Your task to perform on an android device: Open battery settings Image 0: 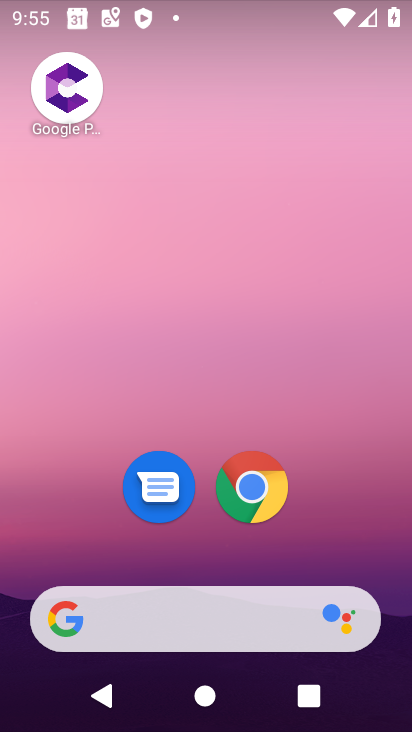
Step 0: drag from (31, 617) to (277, 176)
Your task to perform on an android device: Open battery settings Image 1: 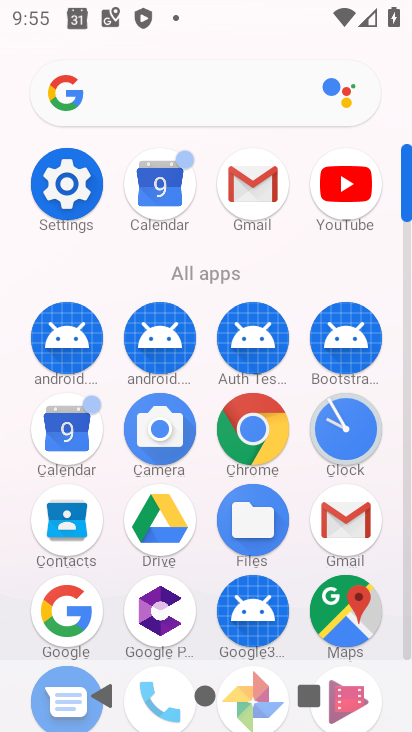
Step 1: click (87, 192)
Your task to perform on an android device: Open battery settings Image 2: 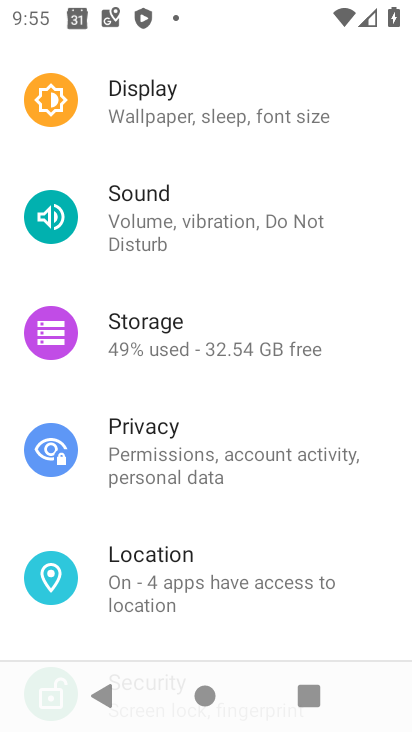
Step 2: drag from (215, 114) to (148, 542)
Your task to perform on an android device: Open battery settings Image 3: 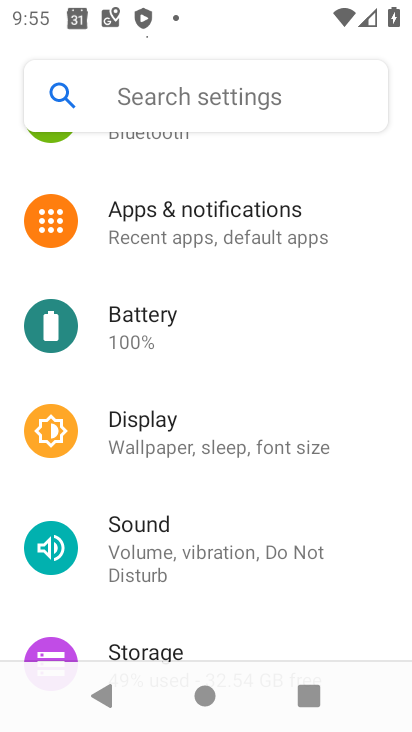
Step 3: drag from (189, 177) to (123, 603)
Your task to perform on an android device: Open battery settings Image 4: 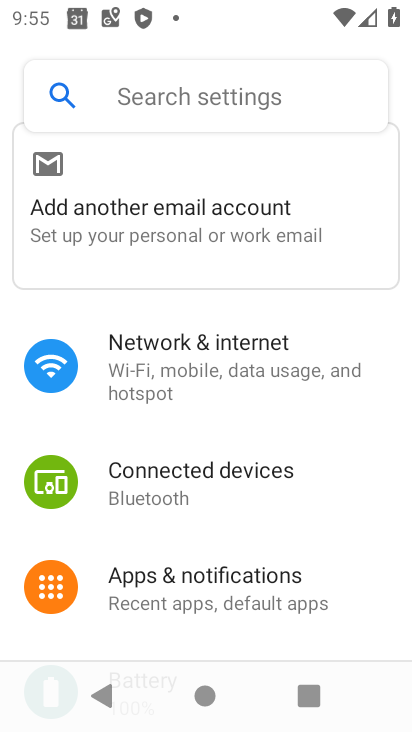
Step 4: drag from (130, 545) to (267, 246)
Your task to perform on an android device: Open battery settings Image 5: 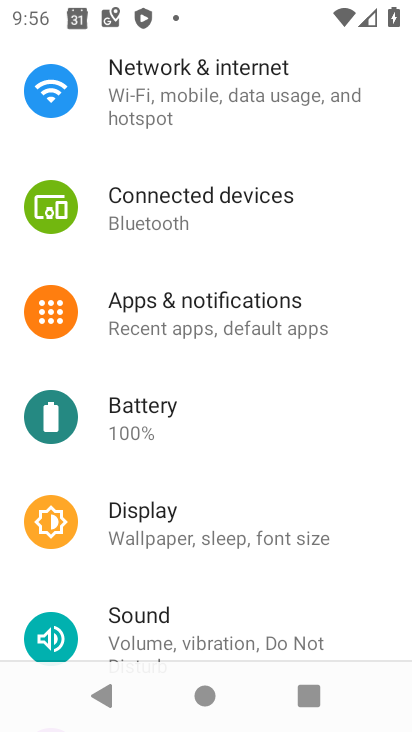
Step 5: click (166, 398)
Your task to perform on an android device: Open battery settings Image 6: 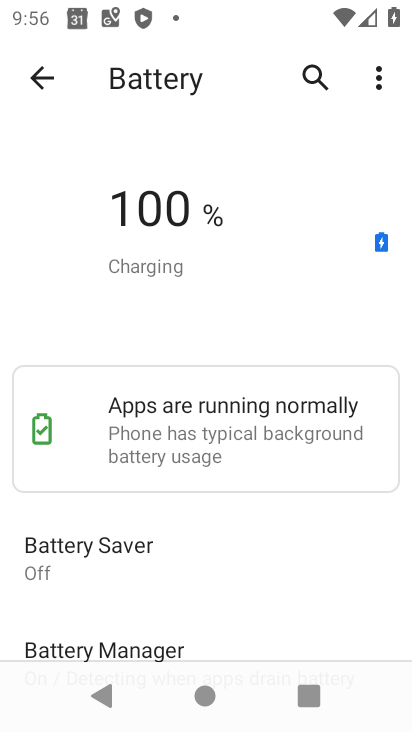
Step 6: task complete